Your task to perform on an android device: turn on wifi Image 0: 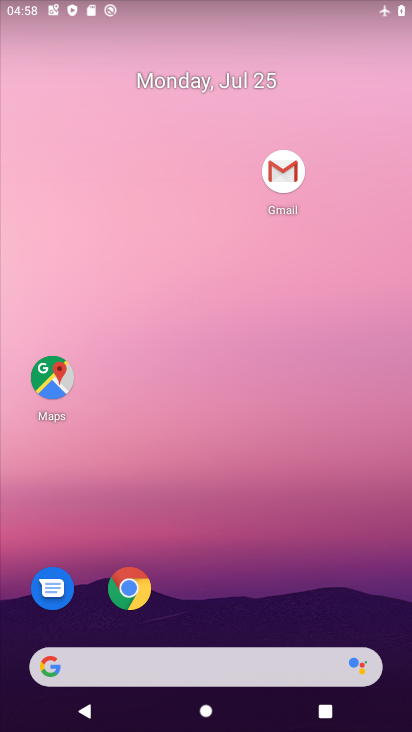
Step 0: drag from (282, 524) to (235, 77)
Your task to perform on an android device: turn on wifi Image 1: 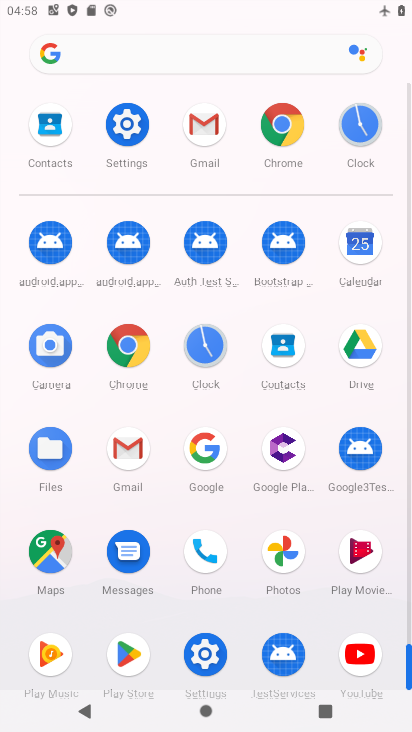
Step 1: click (125, 116)
Your task to perform on an android device: turn on wifi Image 2: 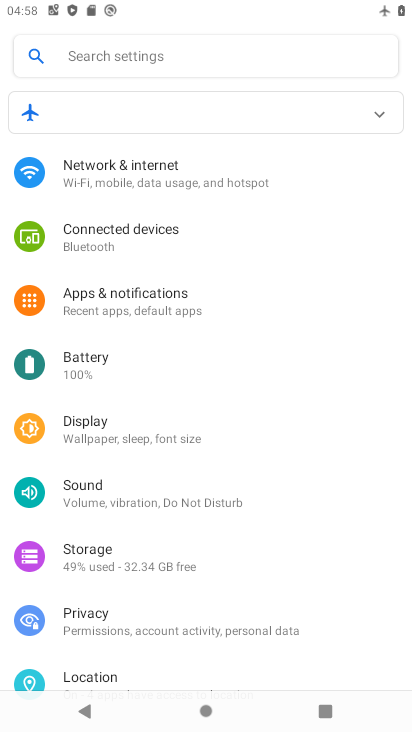
Step 2: click (178, 175)
Your task to perform on an android device: turn on wifi Image 3: 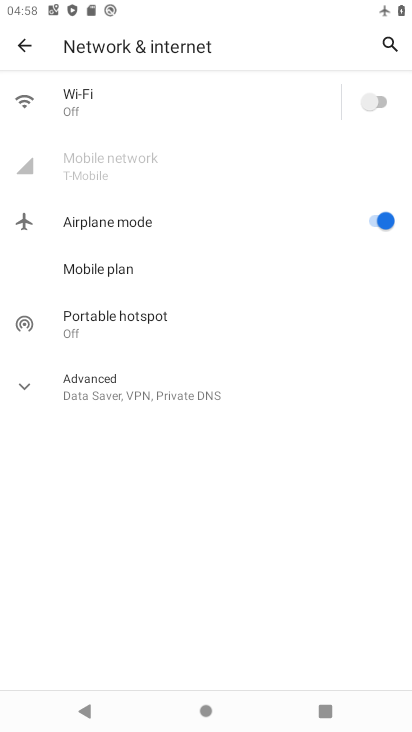
Step 3: click (381, 96)
Your task to perform on an android device: turn on wifi Image 4: 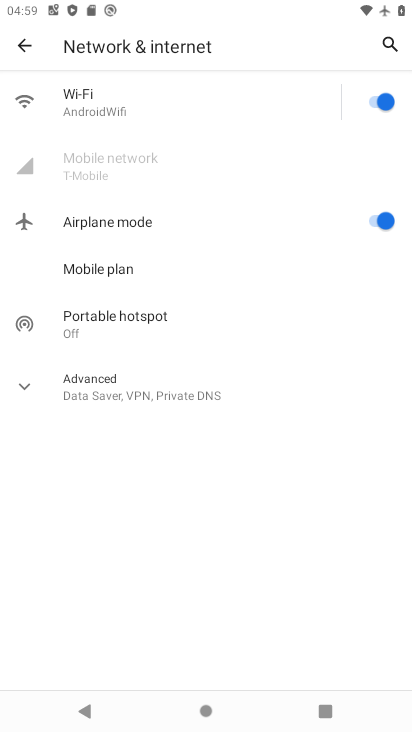
Step 4: task complete